Your task to perform on an android device: check android version Image 0: 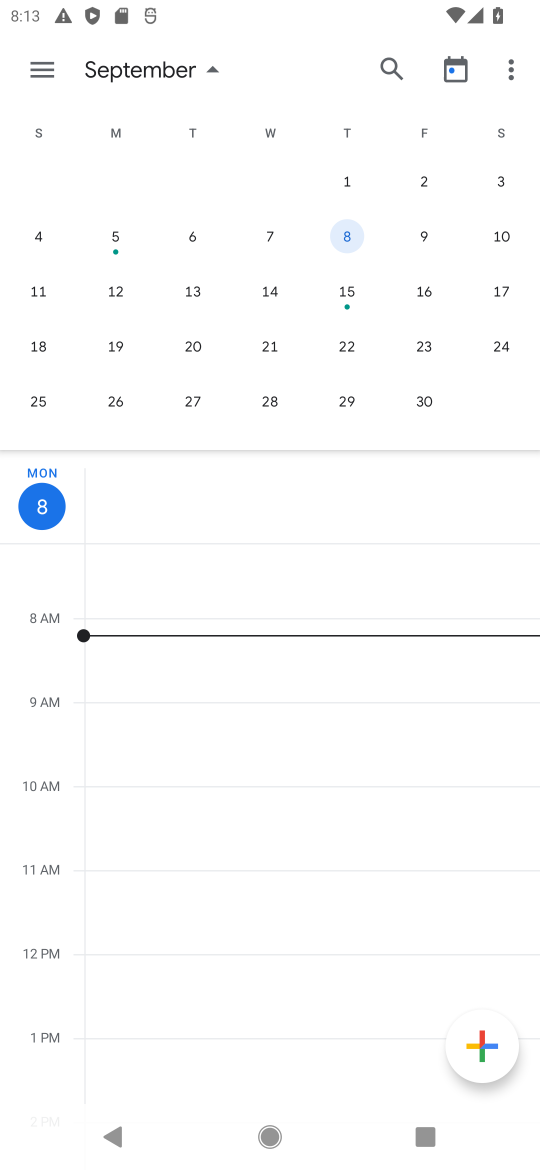
Step 0: press home button
Your task to perform on an android device: check android version Image 1: 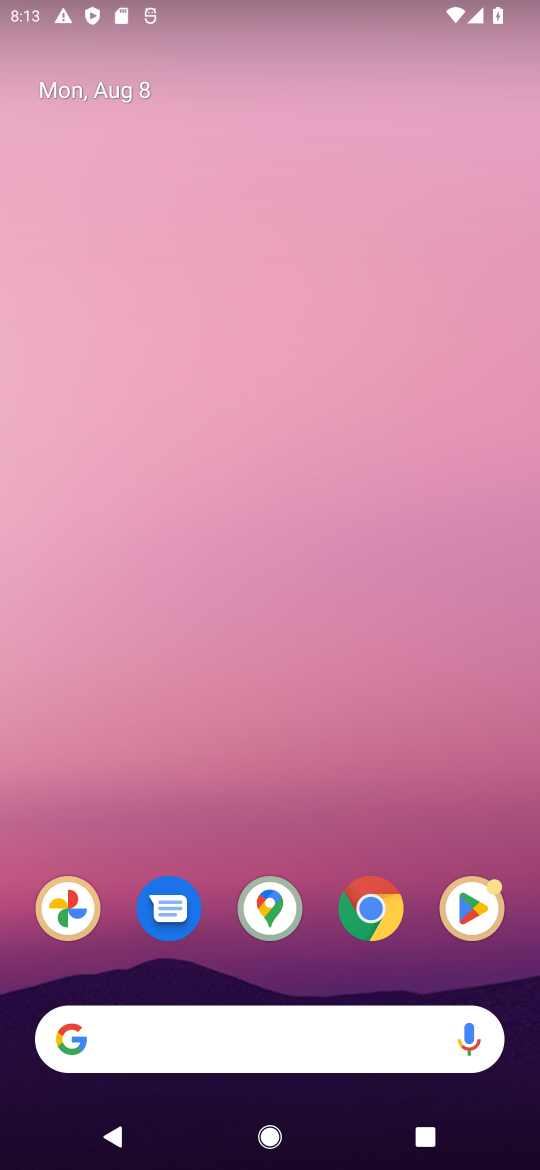
Step 1: drag from (223, 878) to (384, 0)
Your task to perform on an android device: check android version Image 2: 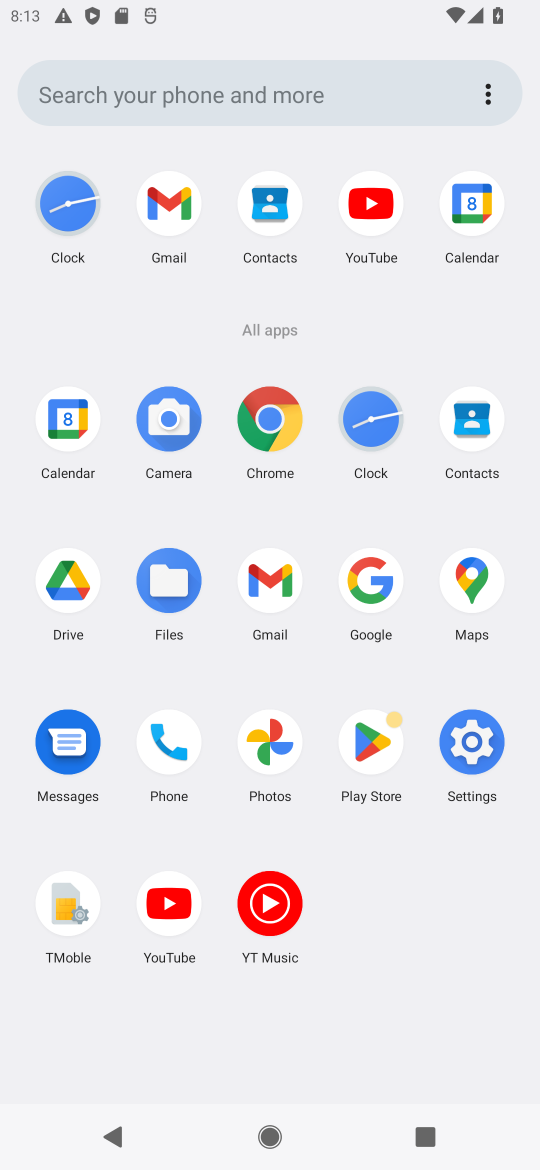
Step 2: click (459, 757)
Your task to perform on an android device: check android version Image 3: 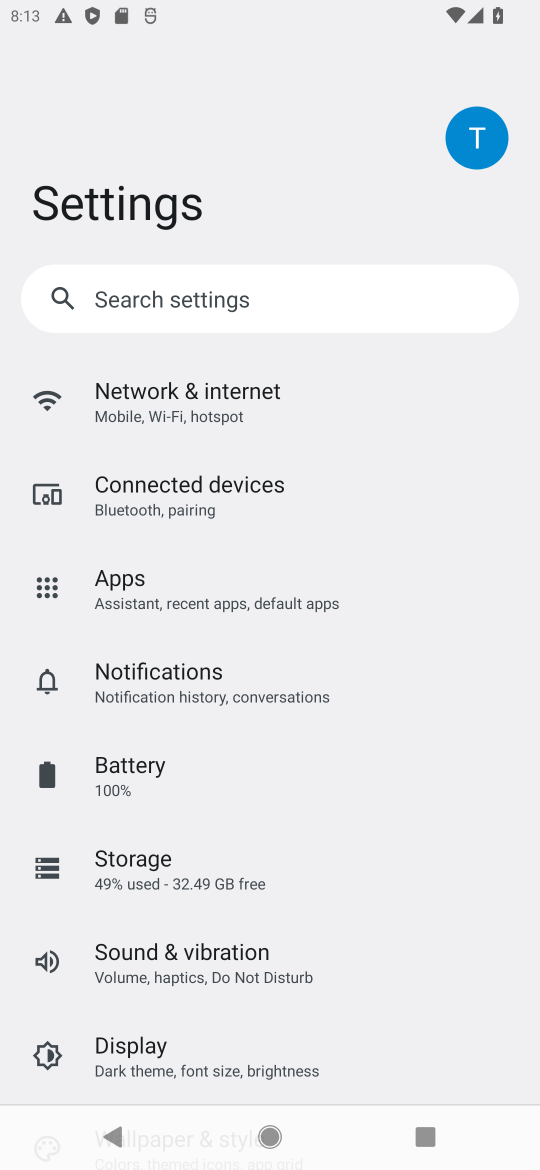
Step 3: drag from (156, 1026) to (343, 27)
Your task to perform on an android device: check android version Image 4: 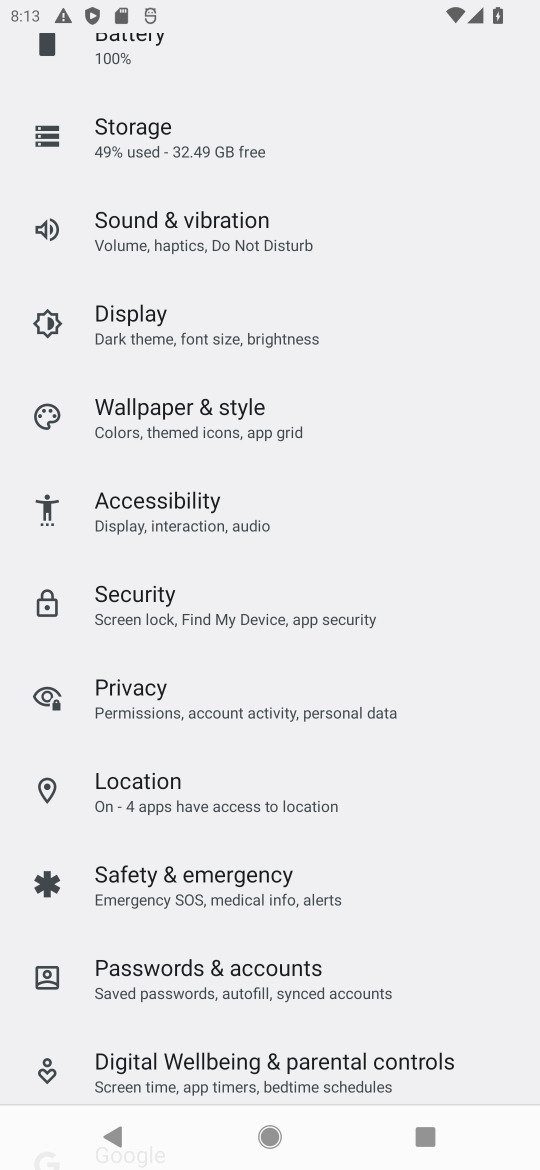
Step 4: drag from (225, 1034) to (246, 462)
Your task to perform on an android device: check android version Image 5: 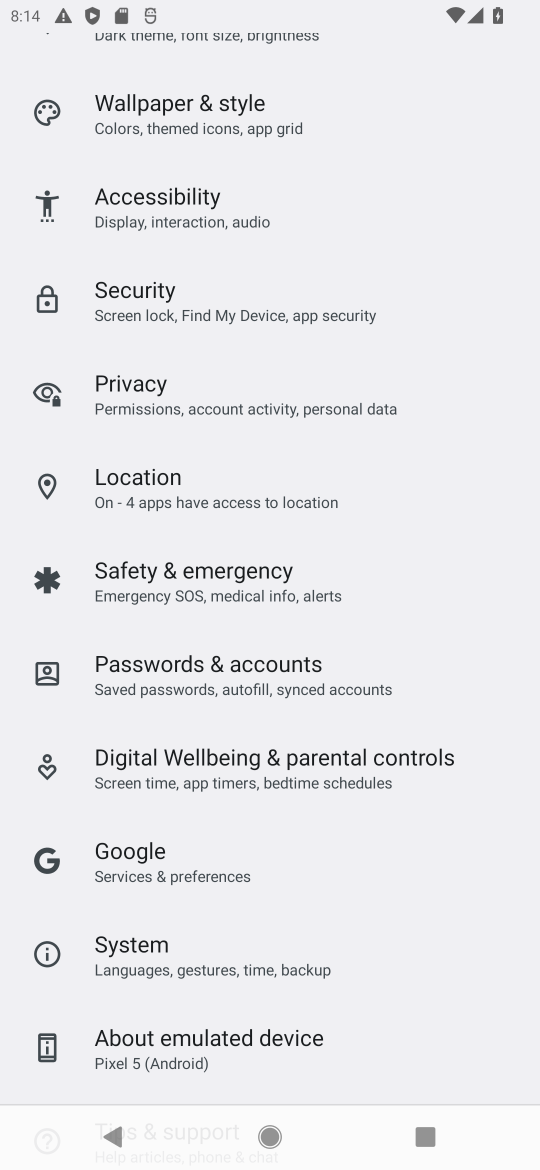
Step 5: drag from (185, 1041) to (155, 504)
Your task to perform on an android device: check android version Image 6: 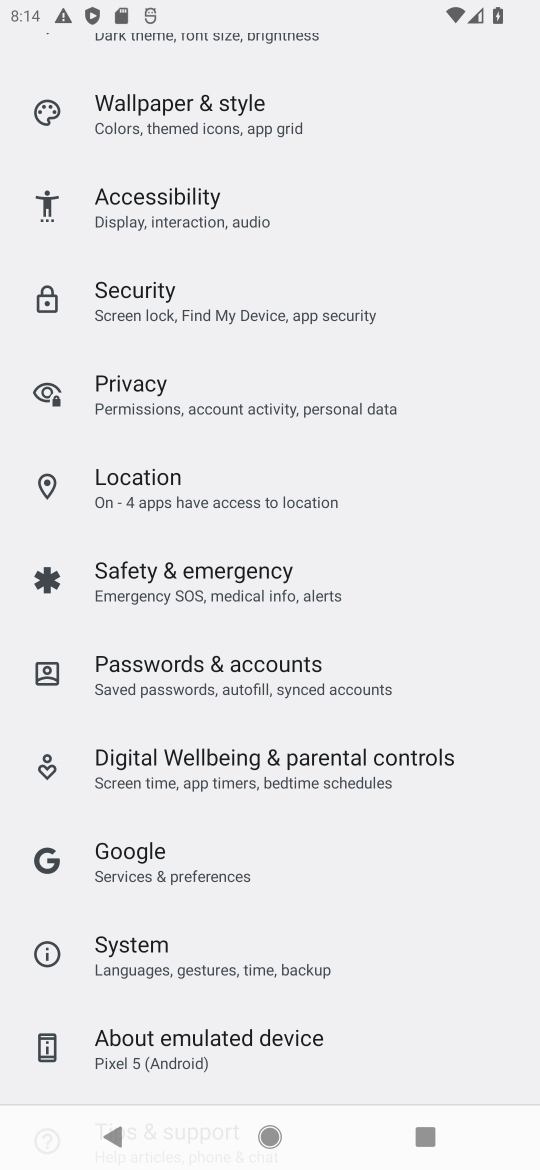
Step 6: drag from (170, 1050) to (354, 149)
Your task to perform on an android device: check android version Image 7: 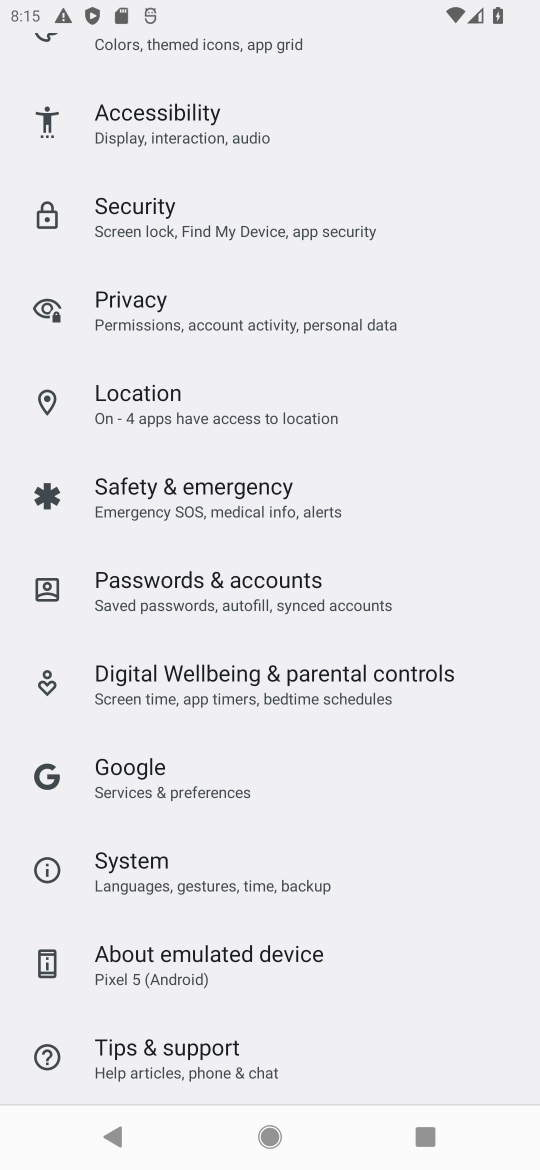
Step 7: drag from (182, 1052) to (233, 543)
Your task to perform on an android device: check android version Image 8: 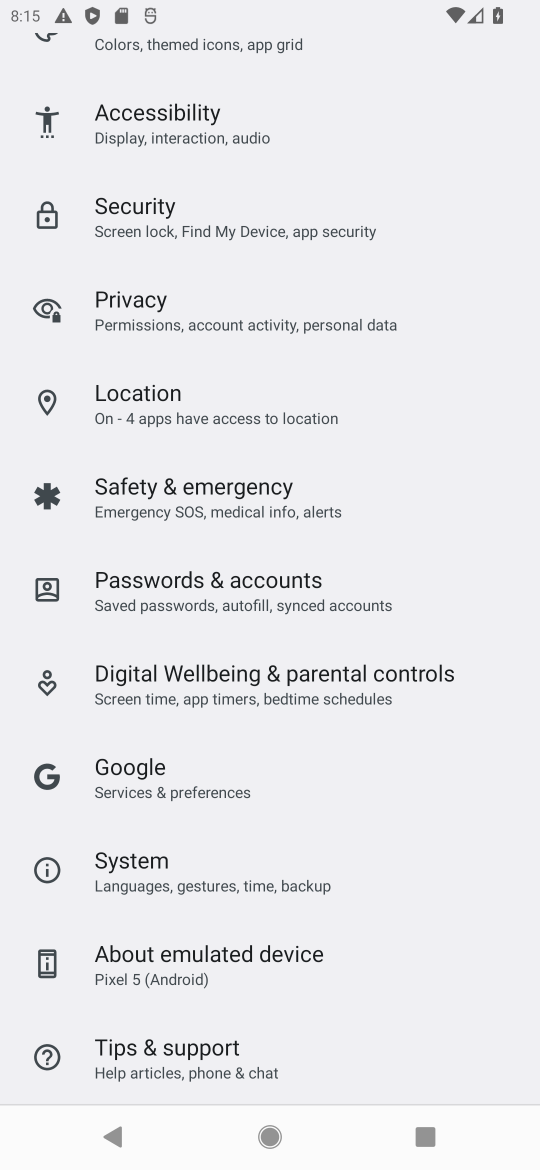
Step 8: click (217, 972)
Your task to perform on an android device: check android version Image 9: 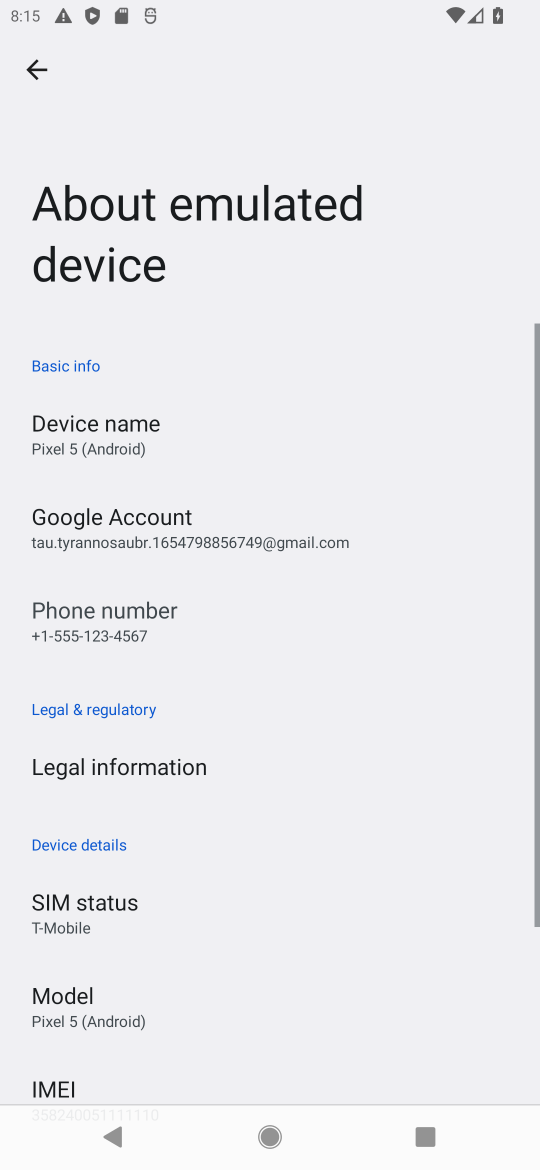
Step 9: drag from (125, 1044) to (244, 598)
Your task to perform on an android device: check android version Image 10: 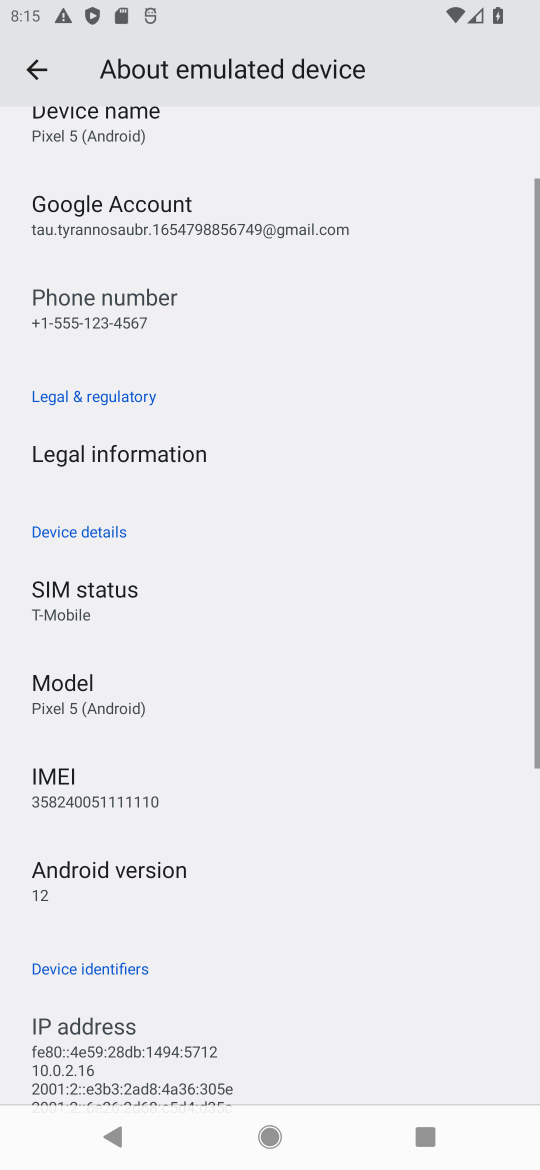
Step 10: click (195, 973)
Your task to perform on an android device: check android version Image 11: 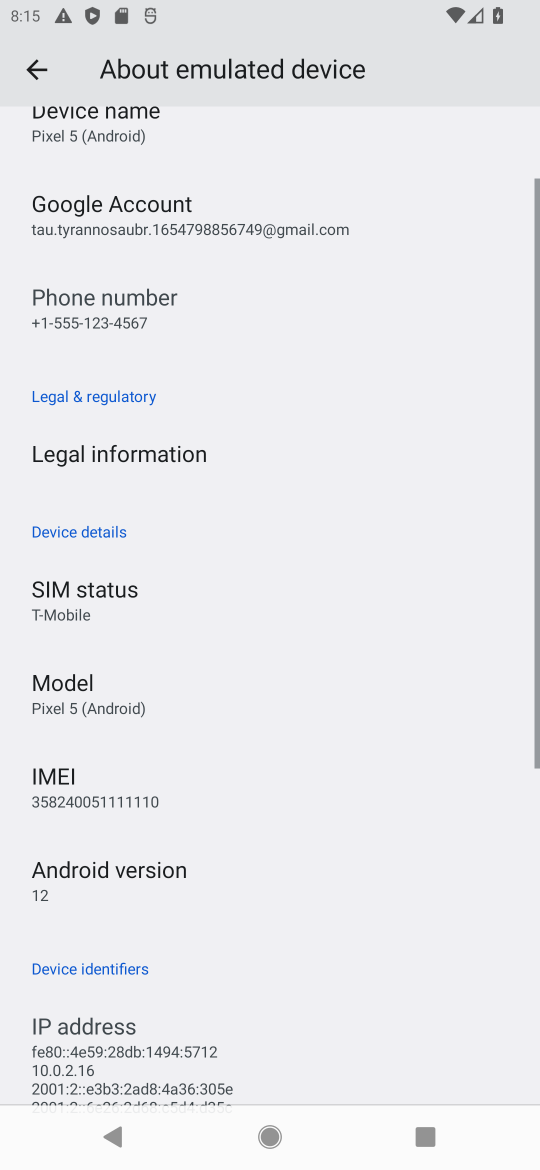
Step 11: click (174, 911)
Your task to perform on an android device: check android version Image 12: 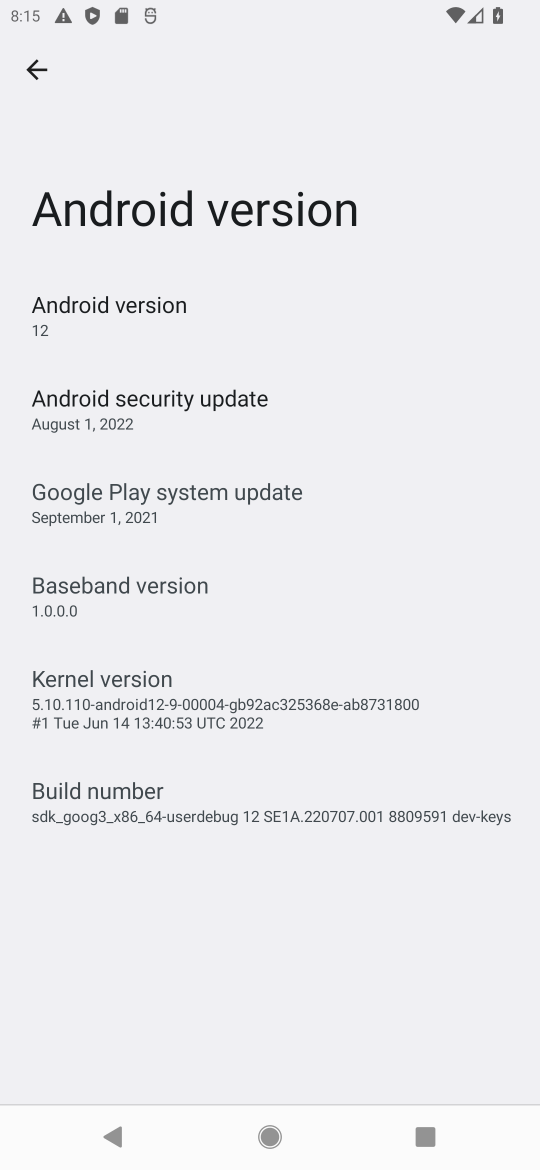
Step 12: task complete